Your task to perform on an android device: Open the calendar app, open the side menu, and click the "Day" option Image 0: 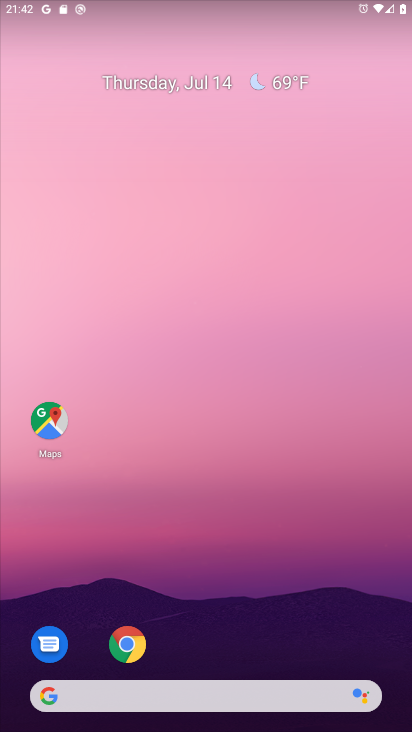
Step 0: click (178, 82)
Your task to perform on an android device: Open the calendar app, open the side menu, and click the "Day" option Image 1: 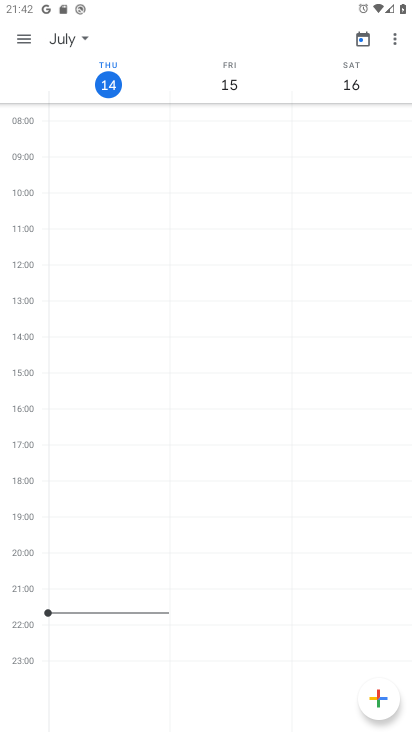
Step 1: click (28, 35)
Your task to perform on an android device: Open the calendar app, open the side menu, and click the "Day" option Image 2: 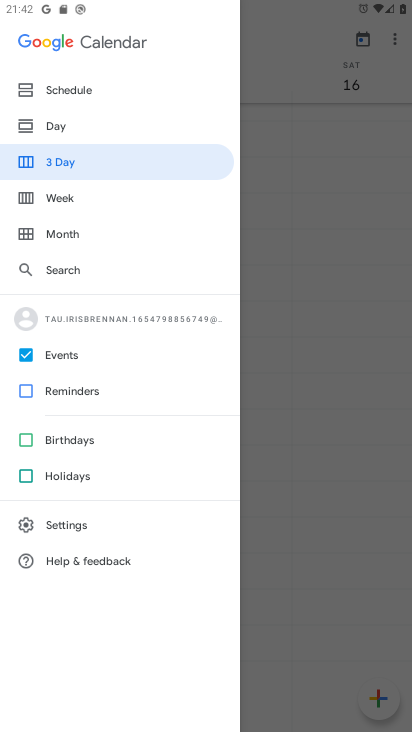
Step 2: click (116, 134)
Your task to perform on an android device: Open the calendar app, open the side menu, and click the "Day" option Image 3: 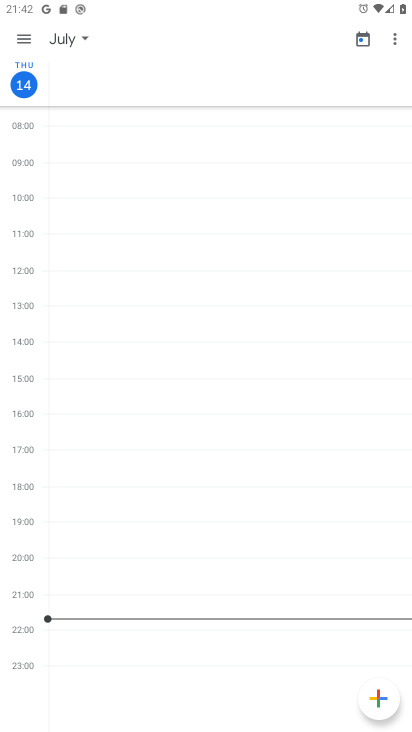
Step 3: task complete